Your task to perform on an android device: open app "LinkedIn" Image 0: 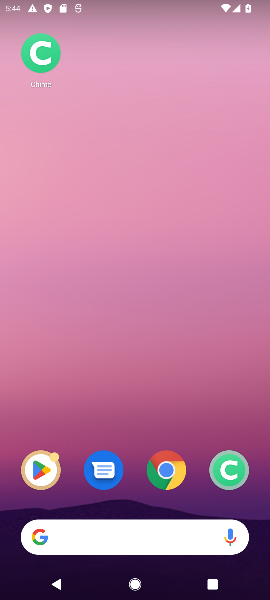
Step 0: drag from (192, 416) to (159, 182)
Your task to perform on an android device: open app "LinkedIn" Image 1: 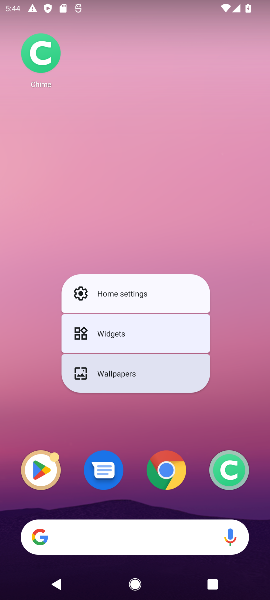
Step 1: click (242, 298)
Your task to perform on an android device: open app "LinkedIn" Image 2: 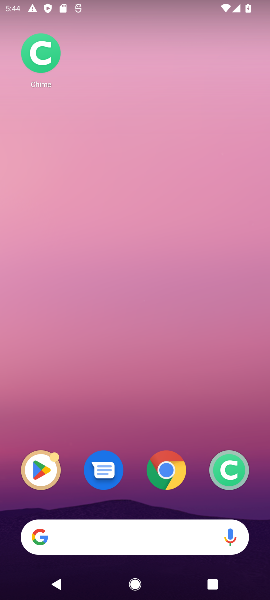
Step 2: drag from (199, 409) to (156, 128)
Your task to perform on an android device: open app "LinkedIn" Image 3: 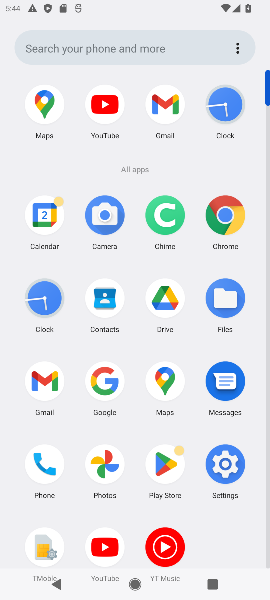
Step 3: click (149, 461)
Your task to perform on an android device: open app "LinkedIn" Image 4: 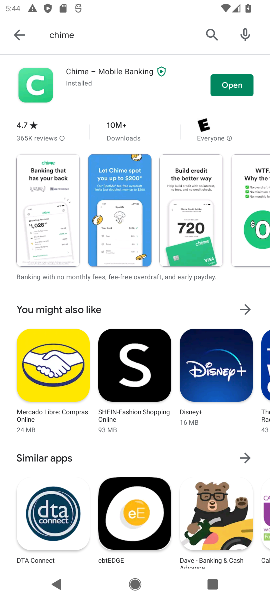
Step 4: click (211, 37)
Your task to perform on an android device: open app "LinkedIn" Image 5: 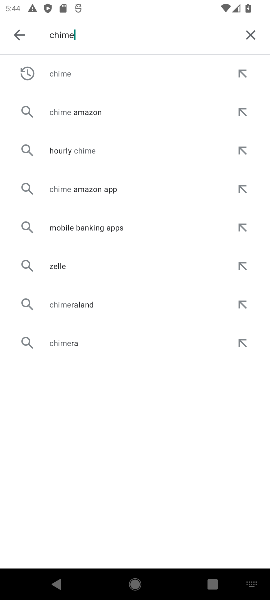
Step 5: click (252, 33)
Your task to perform on an android device: open app "LinkedIn" Image 6: 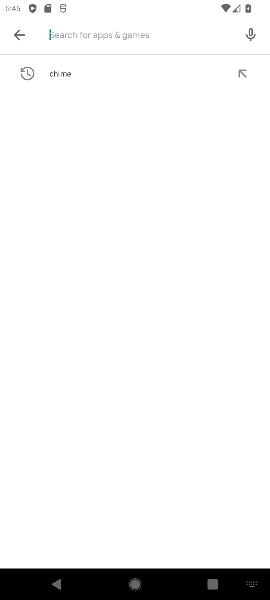
Step 6: press home button
Your task to perform on an android device: open app "LinkedIn" Image 7: 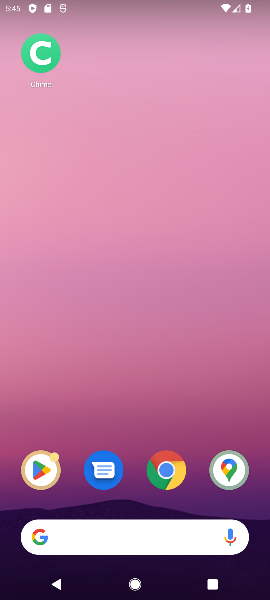
Step 7: click (31, 463)
Your task to perform on an android device: open app "LinkedIn" Image 8: 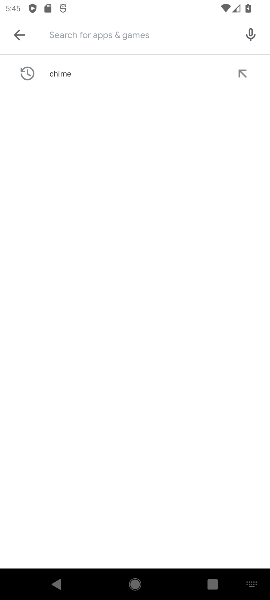
Step 8: type "linkedin"
Your task to perform on an android device: open app "LinkedIn" Image 9: 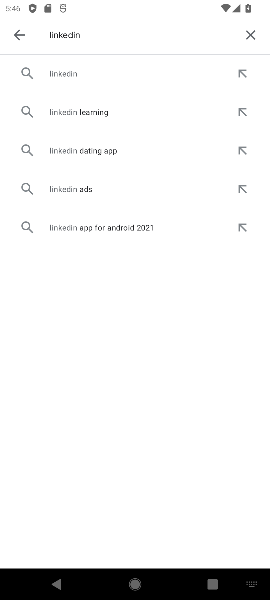
Step 9: click (58, 70)
Your task to perform on an android device: open app "LinkedIn" Image 10: 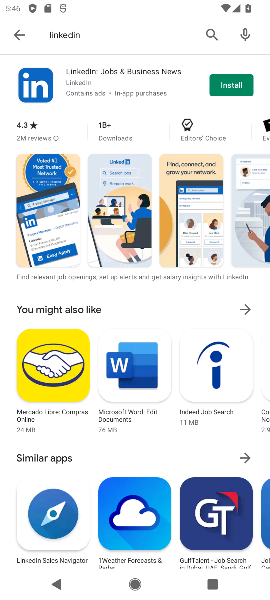
Step 10: task complete